Your task to perform on an android device: Show me popular games on the Play Store Image 0: 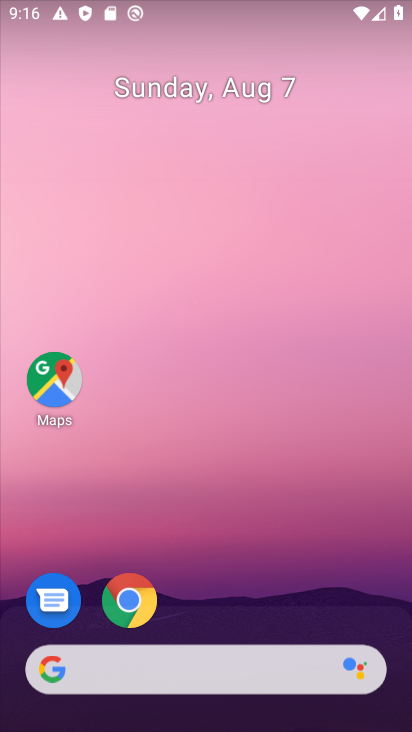
Step 0: drag from (192, 600) to (245, 59)
Your task to perform on an android device: Show me popular games on the Play Store Image 1: 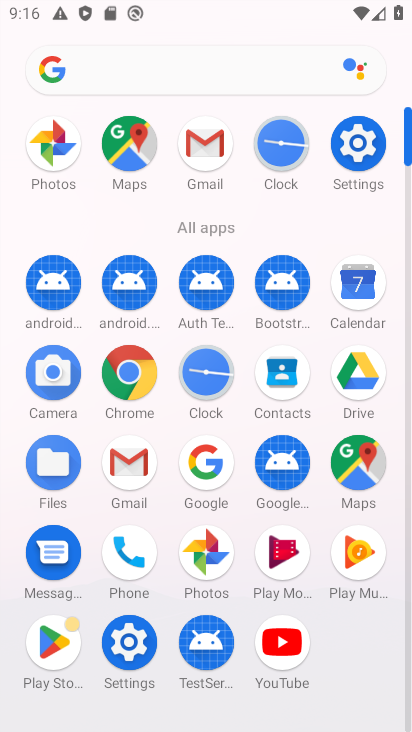
Step 1: click (57, 639)
Your task to perform on an android device: Show me popular games on the Play Store Image 2: 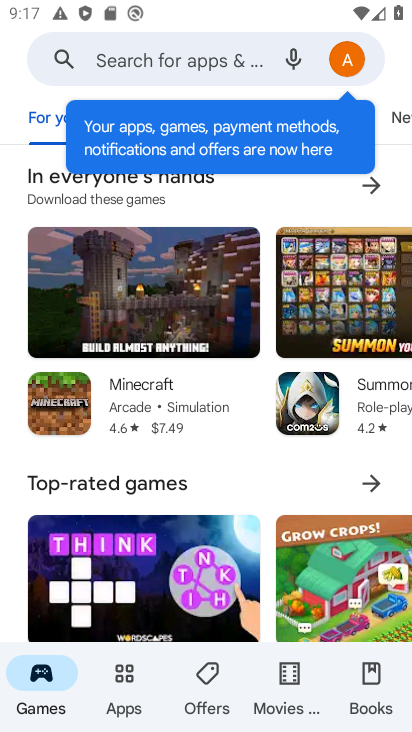
Step 2: task complete